Your task to perform on an android device: turn on location history Image 0: 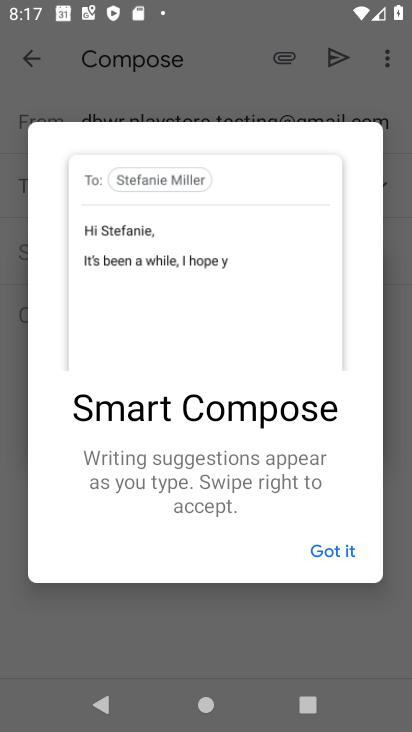
Step 0: press home button
Your task to perform on an android device: turn on location history Image 1: 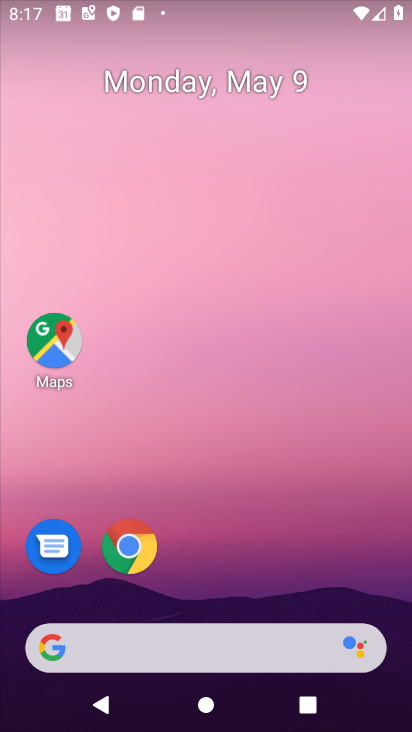
Step 1: drag from (261, 702) to (267, 65)
Your task to perform on an android device: turn on location history Image 2: 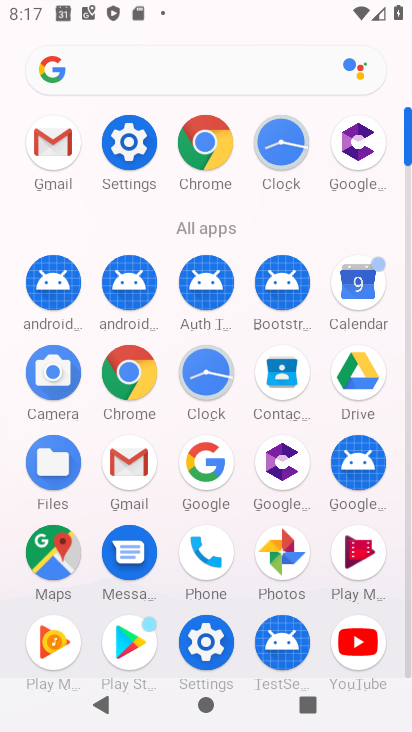
Step 2: click (128, 140)
Your task to perform on an android device: turn on location history Image 3: 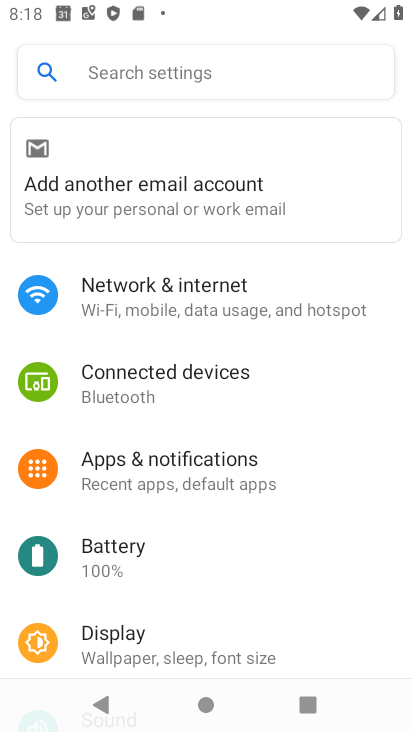
Step 3: drag from (242, 600) to (155, 84)
Your task to perform on an android device: turn on location history Image 4: 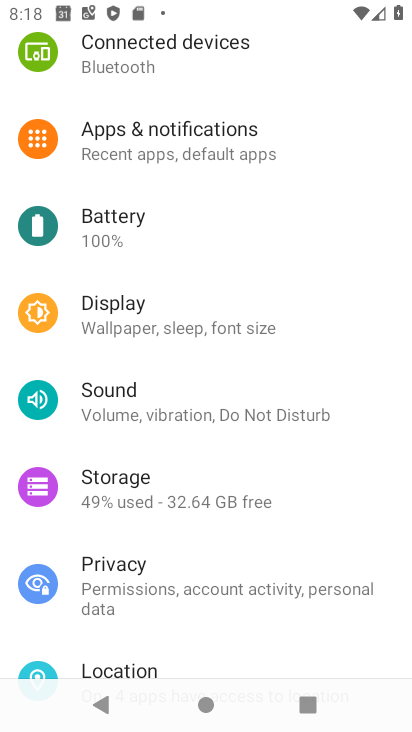
Step 4: click (172, 673)
Your task to perform on an android device: turn on location history Image 5: 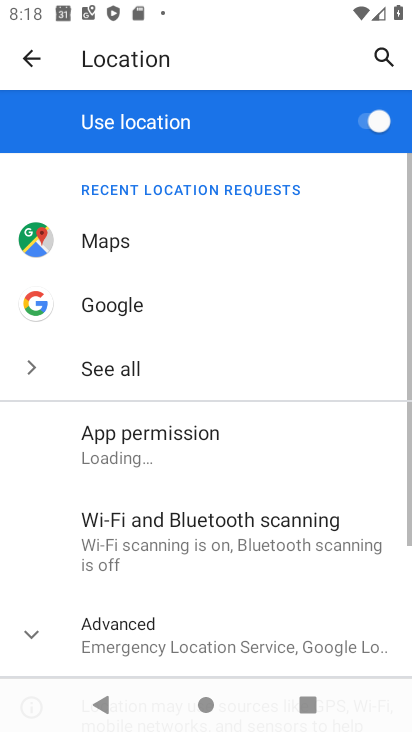
Step 5: drag from (225, 602) to (162, 204)
Your task to perform on an android device: turn on location history Image 6: 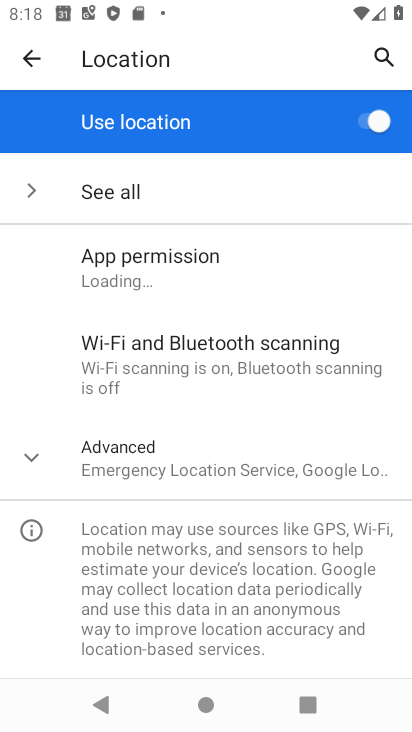
Step 6: click (250, 461)
Your task to perform on an android device: turn on location history Image 7: 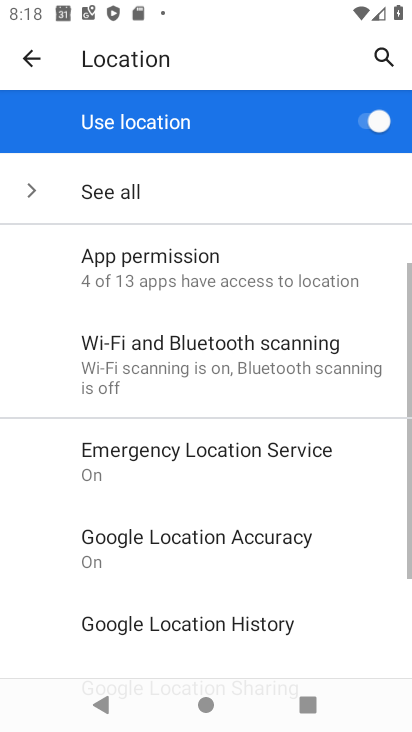
Step 7: click (242, 623)
Your task to perform on an android device: turn on location history Image 8: 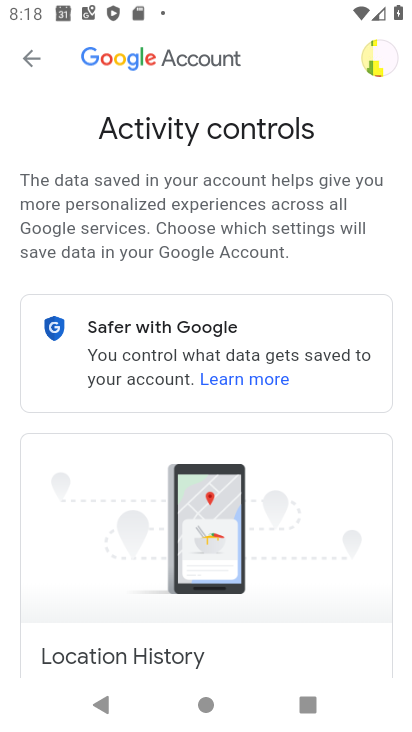
Step 8: task complete